Your task to perform on an android device: turn pop-ups off in chrome Image 0: 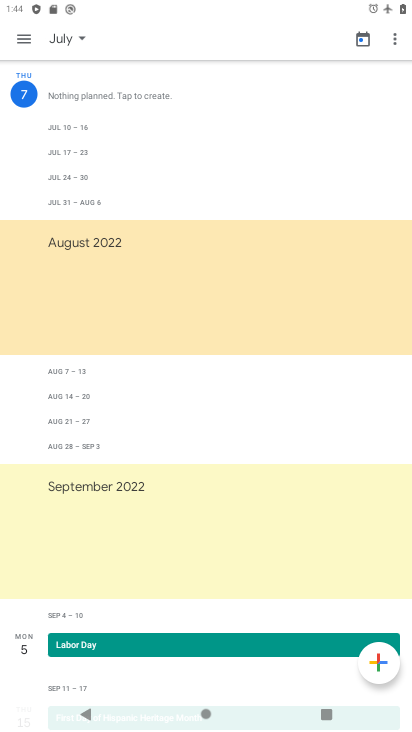
Step 0: press home button
Your task to perform on an android device: turn pop-ups off in chrome Image 1: 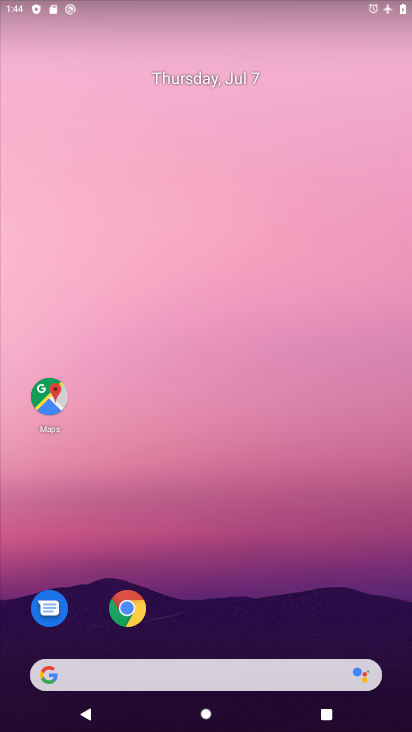
Step 1: click (130, 610)
Your task to perform on an android device: turn pop-ups off in chrome Image 2: 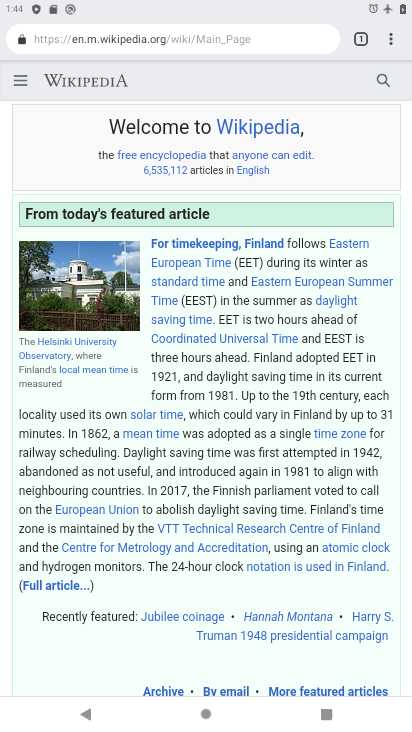
Step 2: click (390, 43)
Your task to perform on an android device: turn pop-ups off in chrome Image 3: 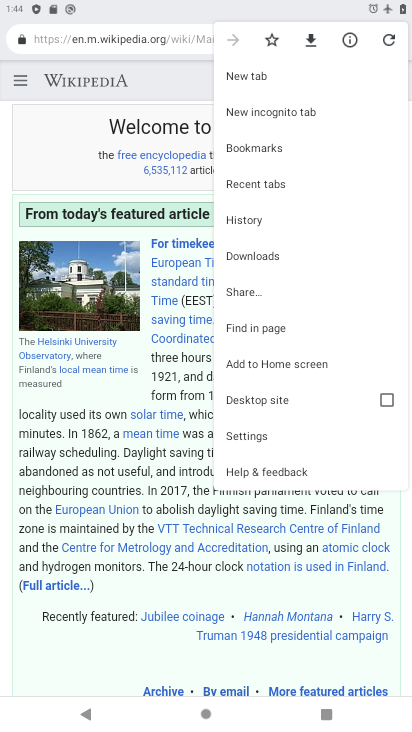
Step 3: click (250, 439)
Your task to perform on an android device: turn pop-ups off in chrome Image 4: 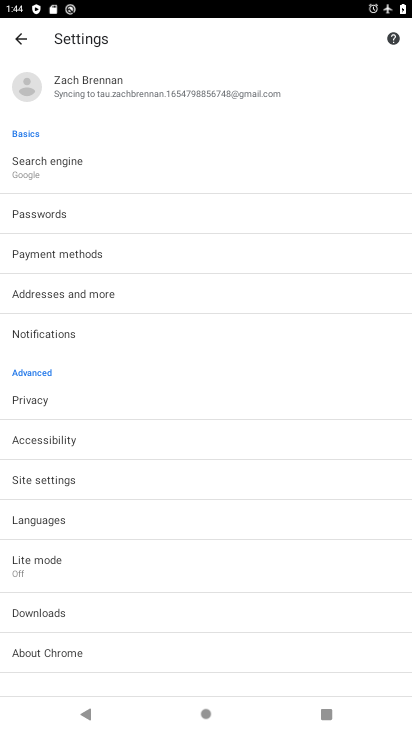
Step 4: click (52, 477)
Your task to perform on an android device: turn pop-ups off in chrome Image 5: 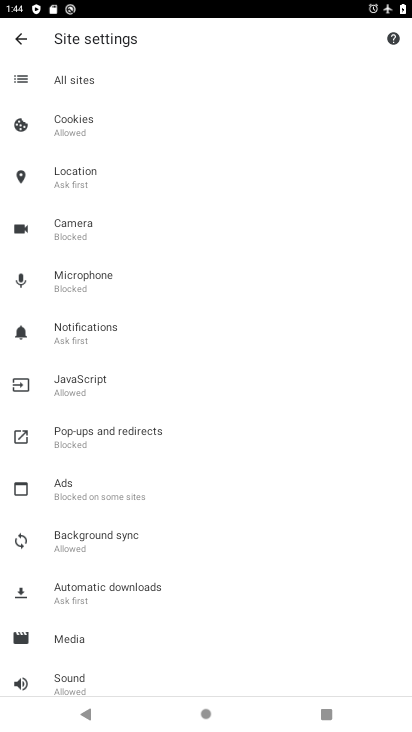
Step 5: click (105, 428)
Your task to perform on an android device: turn pop-ups off in chrome Image 6: 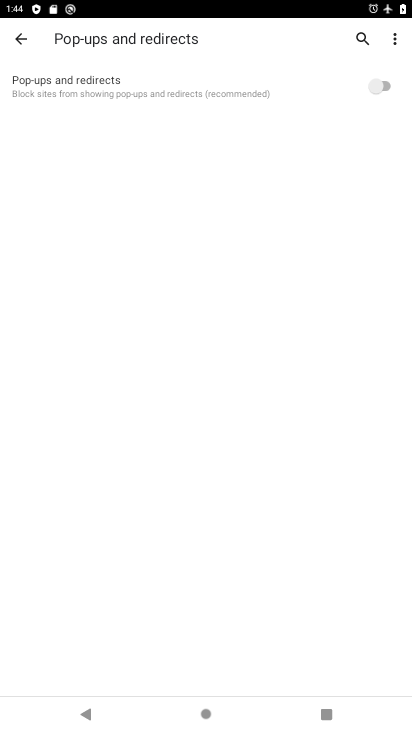
Step 6: task complete